Your task to perform on an android device: uninstall "Venmo" Image 0: 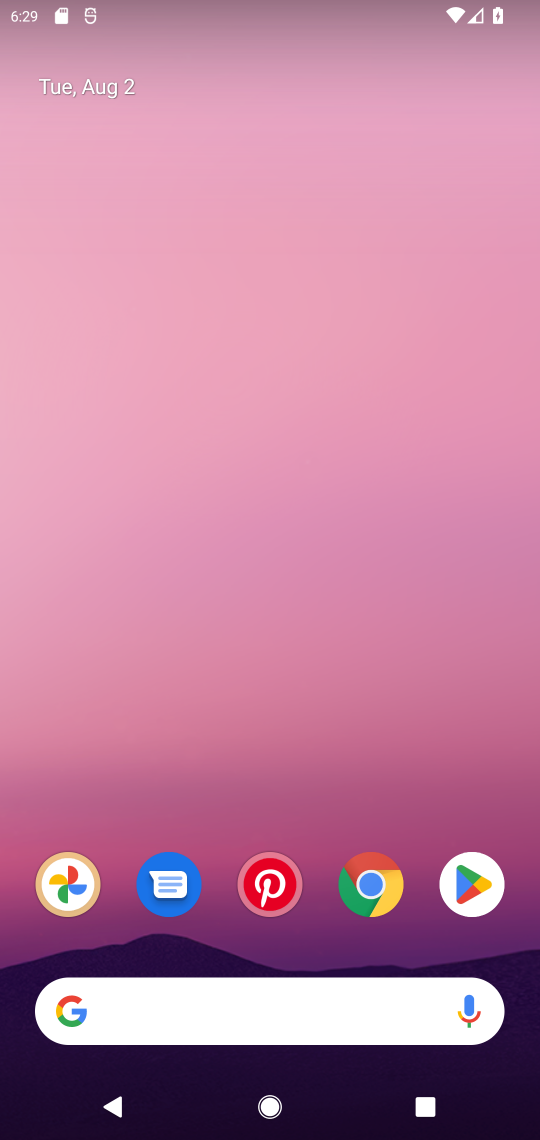
Step 0: press home button
Your task to perform on an android device: uninstall "Venmo" Image 1: 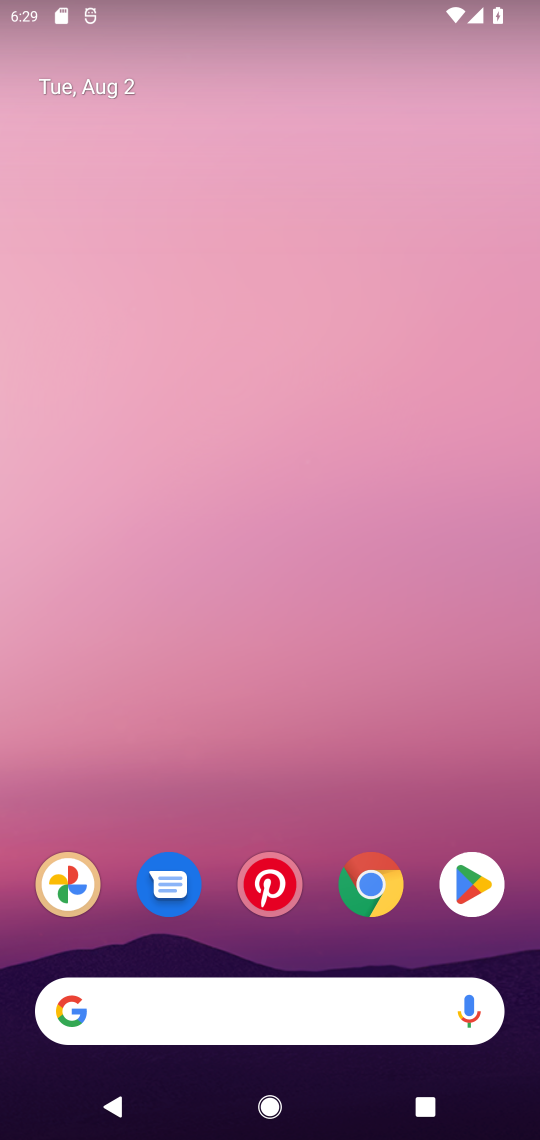
Step 1: click (475, 874)
Your task to perform on an android device: uninstall "Venmo" Image 2: 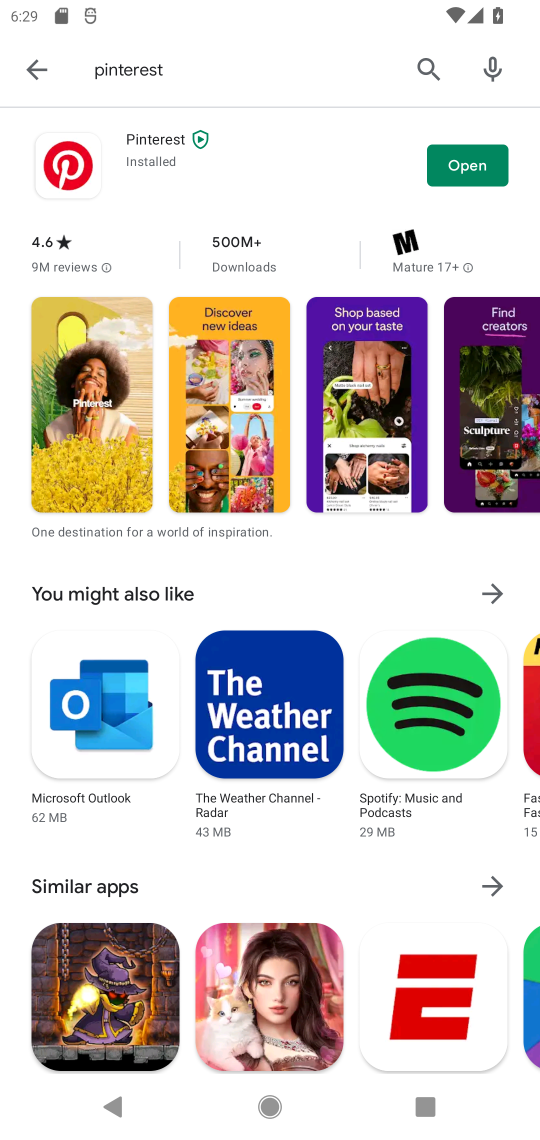
Step 2: click (423, 69)
Your task to perform on an android device: uninstall "Venmo" Image 3: 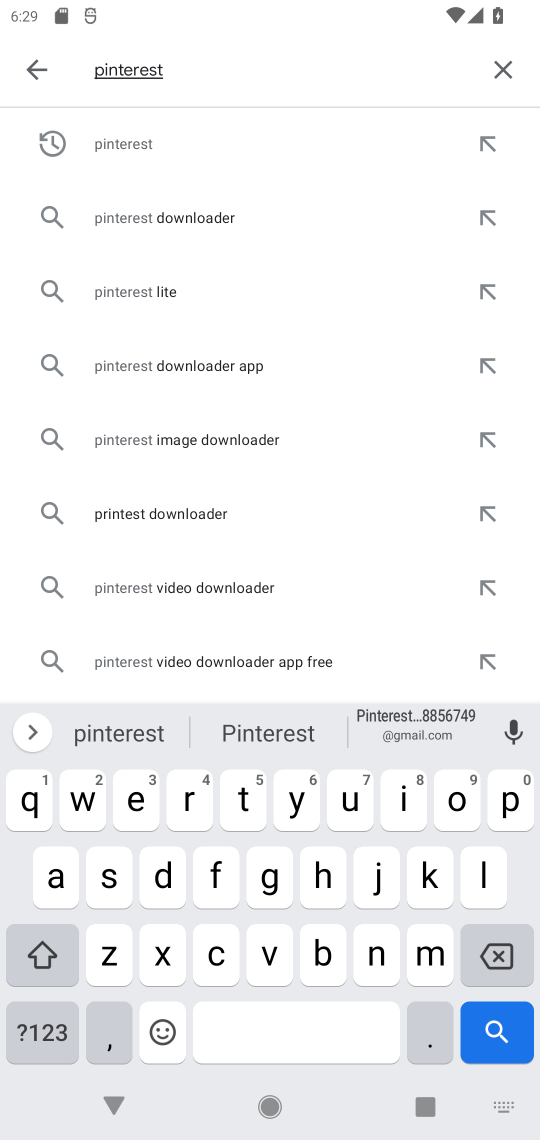
Step 3: click (503, 65)
Your task to perform on an android device: uninstall "Venmo" Image 4: 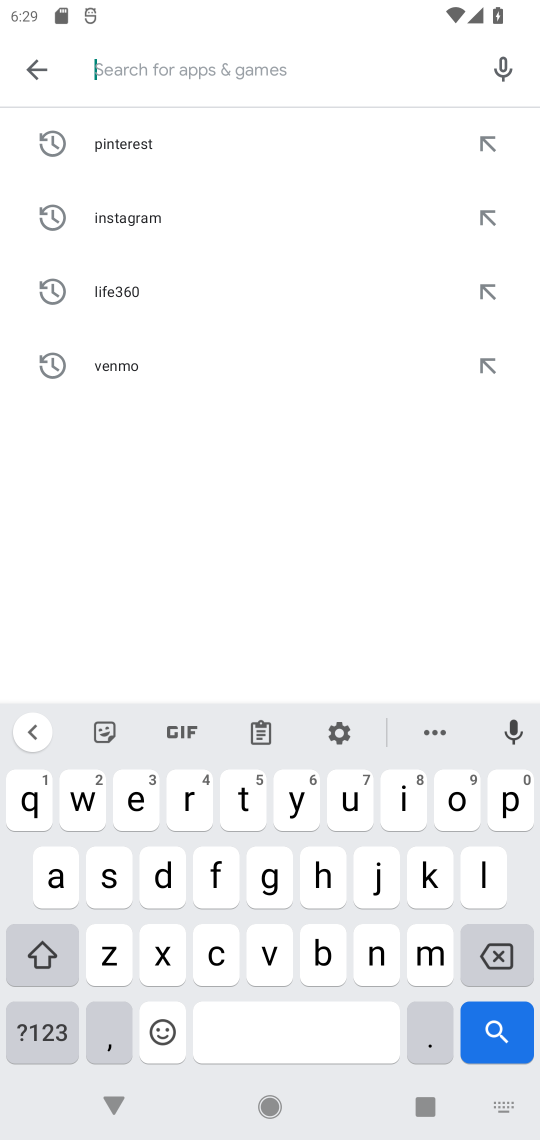
Step 4: click (265, 962)
Your task to perform on an android device: uninstall "Venmo" Image 5: 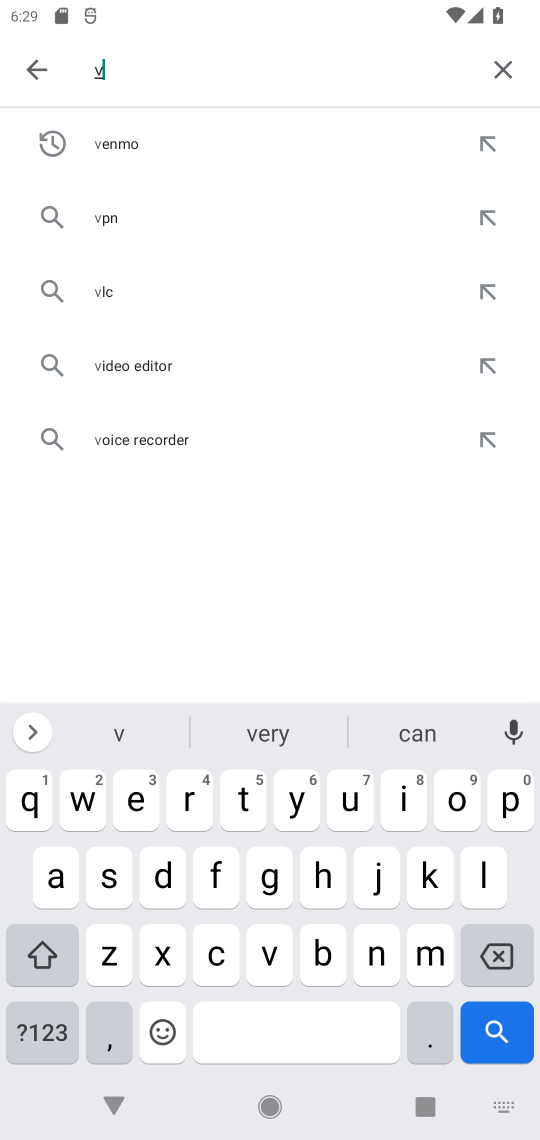
Step 5: click (130, 802)
Your task to perform on an android device: uninstall "Venmo" Image 6: 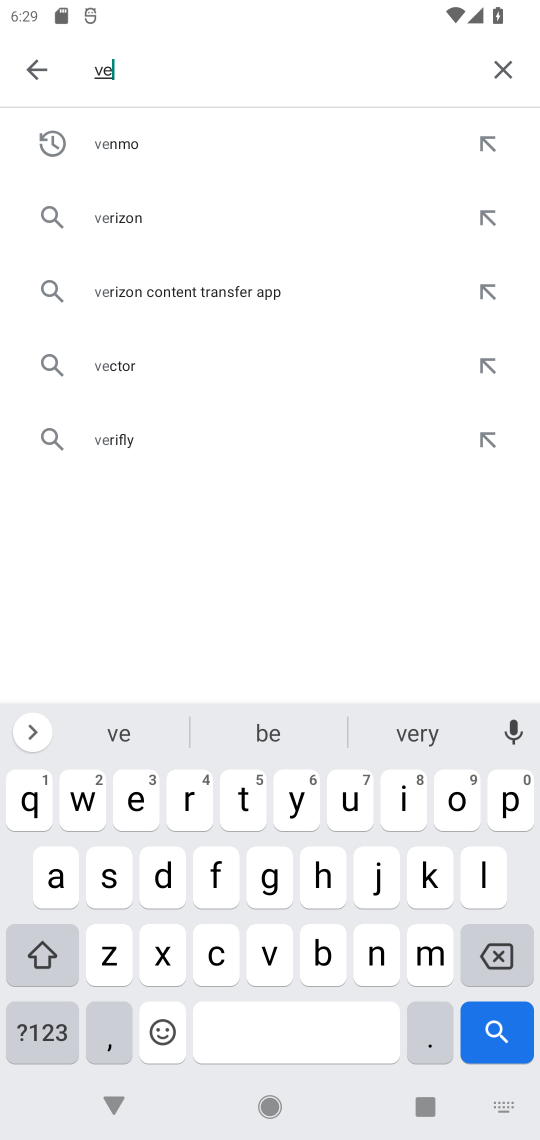
Step 6: click (130, 151)
Your task to perform on an android device: uninstall "Venmo" Image 7: 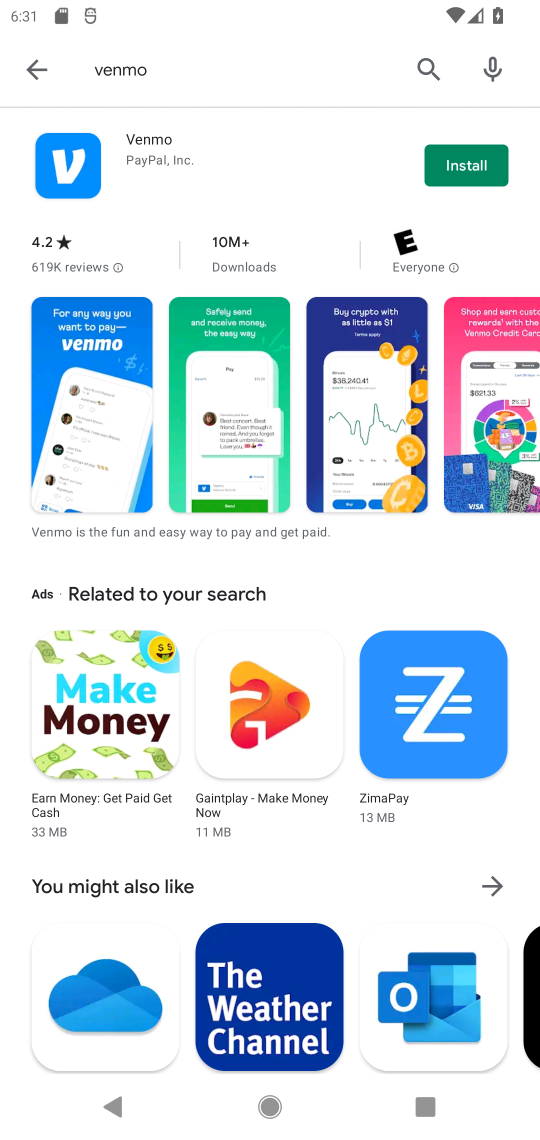
Step 7: task complete